Your task to perform on an android device: turn on notifications settings in the gmail app Image 0: 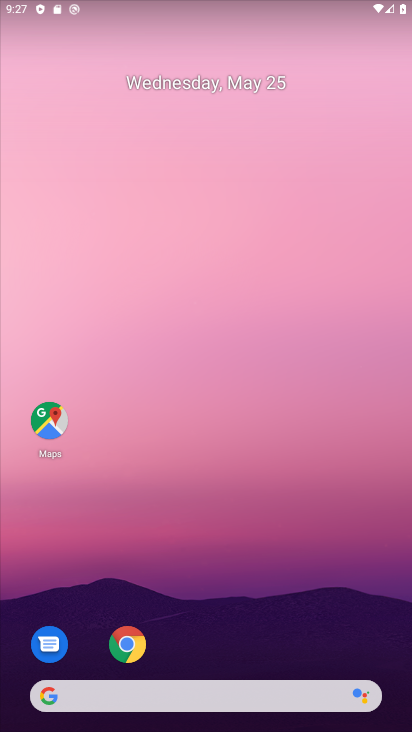
Step 0: drag from (282, 660) to (372, 7)
Your task to perform on an android device: turn on notifications settings in the gmail app Image 1: 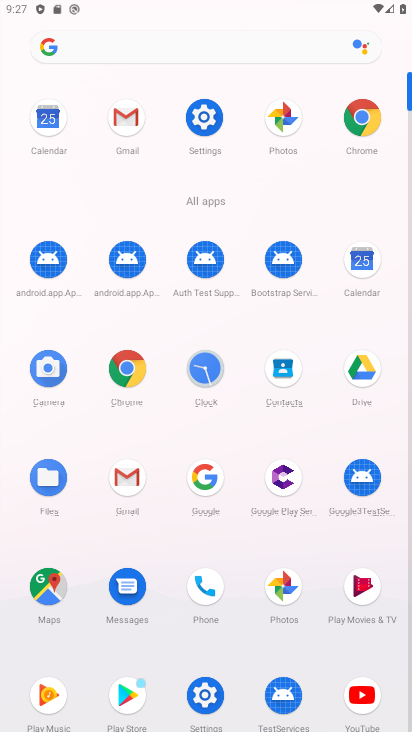
Step 1: click (117, 117)
Your task to perform on an android device: turn on notifications settings in the gmail app Image 2: 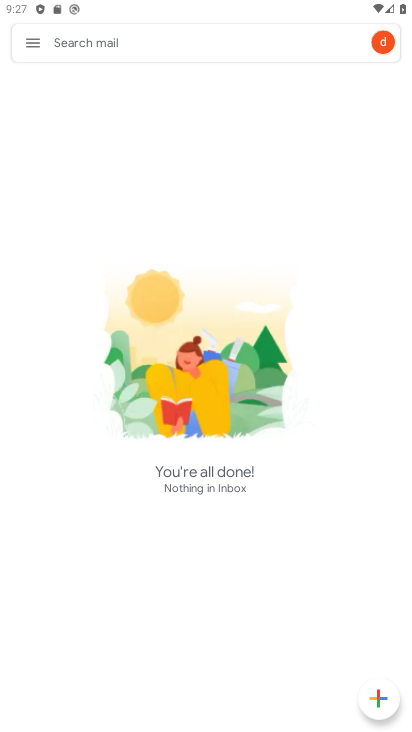
Step 2: click (33, 46)
Your task to perform on an android device: turn on notifications settings in the gmail app Image 3: 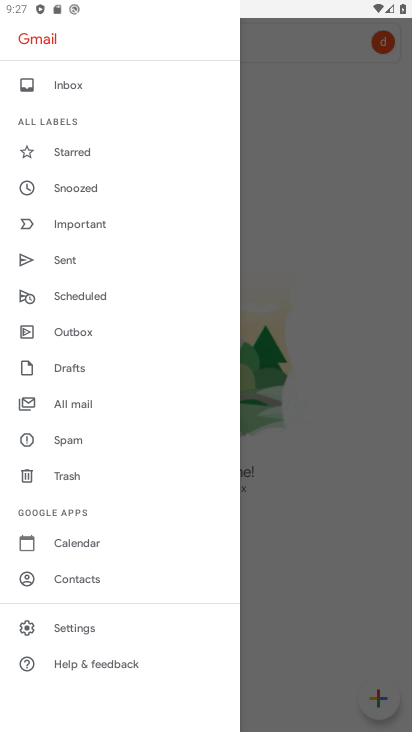
Step 3: click (99, 625)
Your task to perform on an android device: turn on notifications settings in the gmail app Image 4: 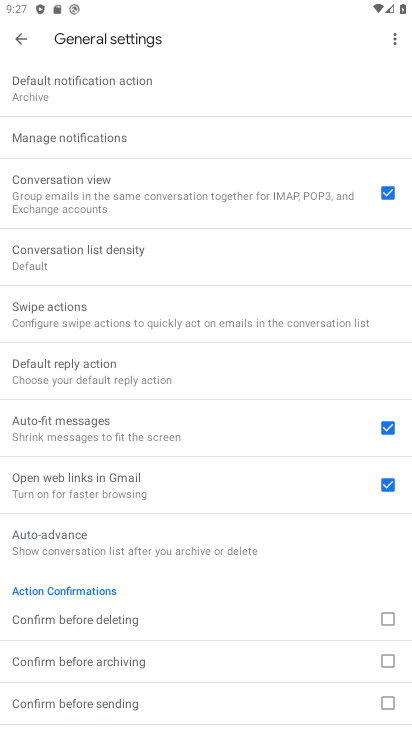
Step 4: click (112, 139)
Your task to perform on an android device: turn on notifications settings in the gmail app Image 5: 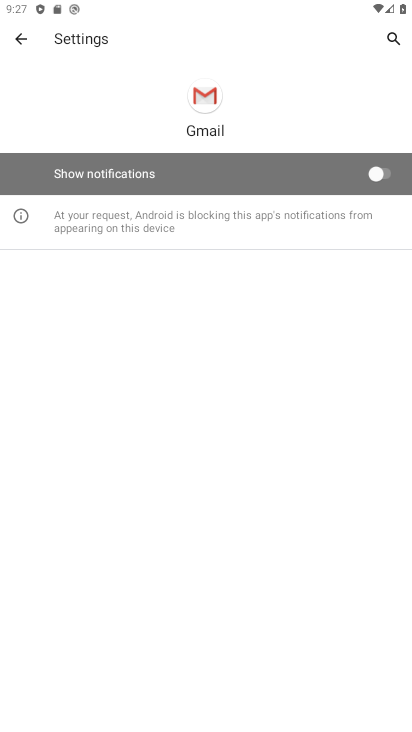
Step 5: click (380, 177)
Your task to perform on an android device: turn on notifications settings in the gmail app Image 6: 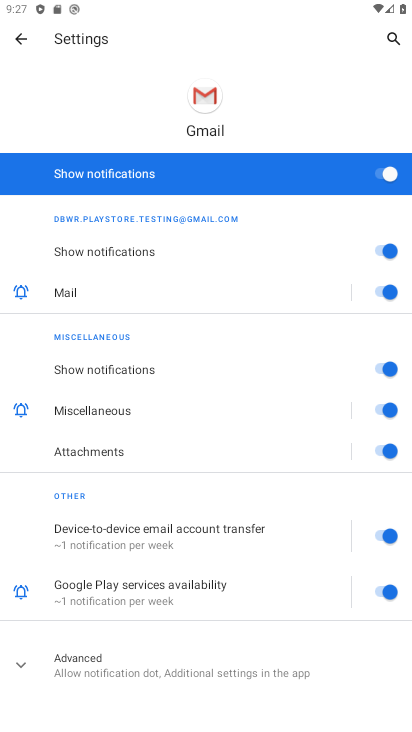
Step 6: task complete